Your task to perform on an android device: turn off location history Image 0: 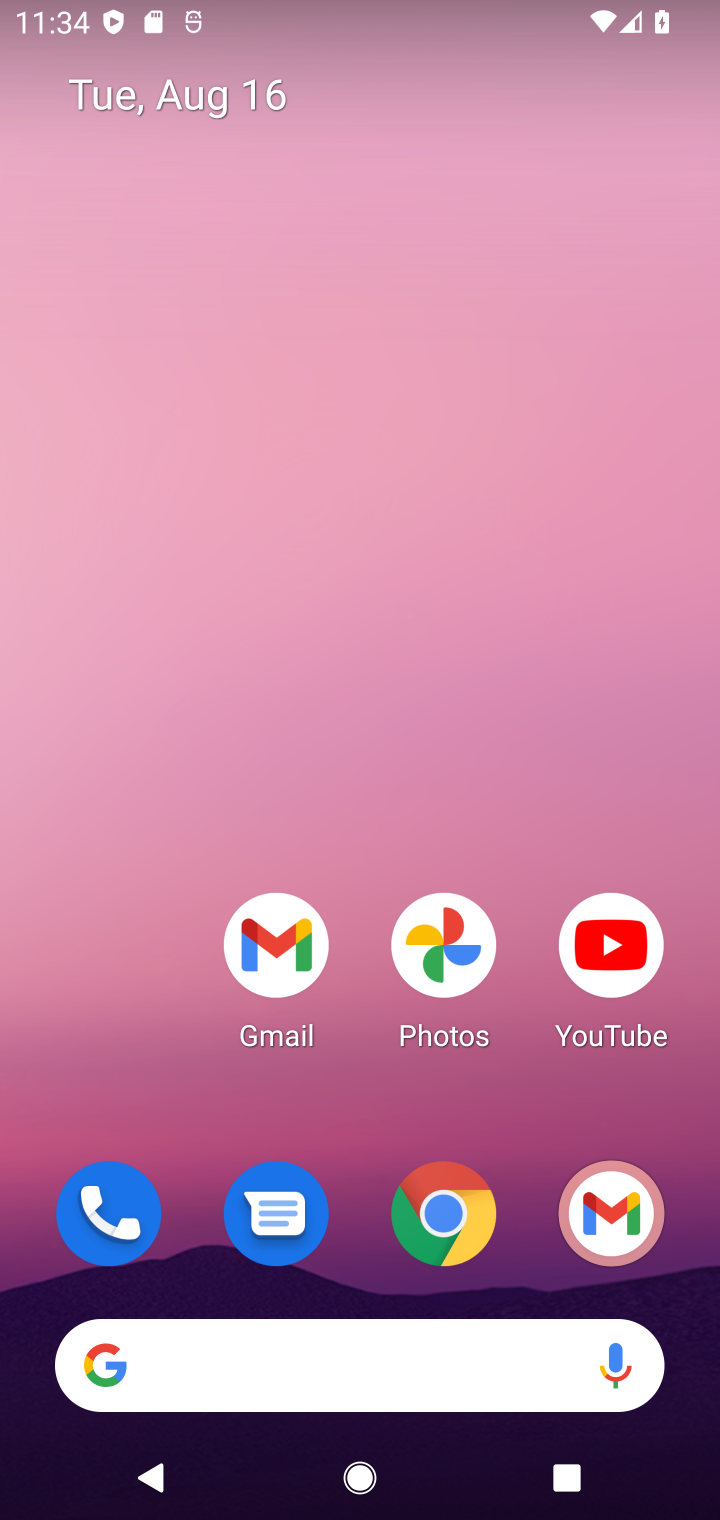
Step 0: drag from (531, 1099) to (520, 0)
Your task to perform on an android device: turn off location history Image 1: 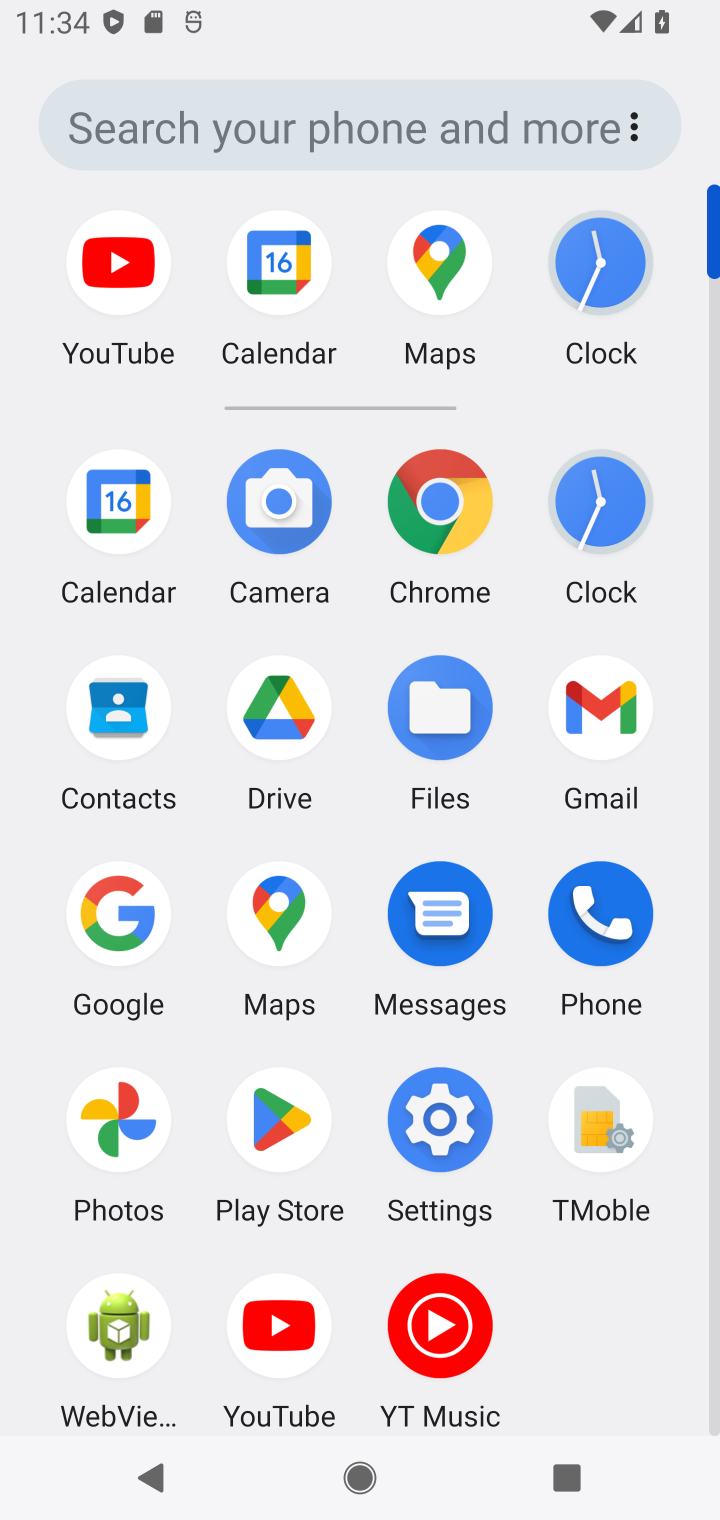
Step 1: click (436, 1109)
Your task to perform on an android device: turn off location history Image 2: 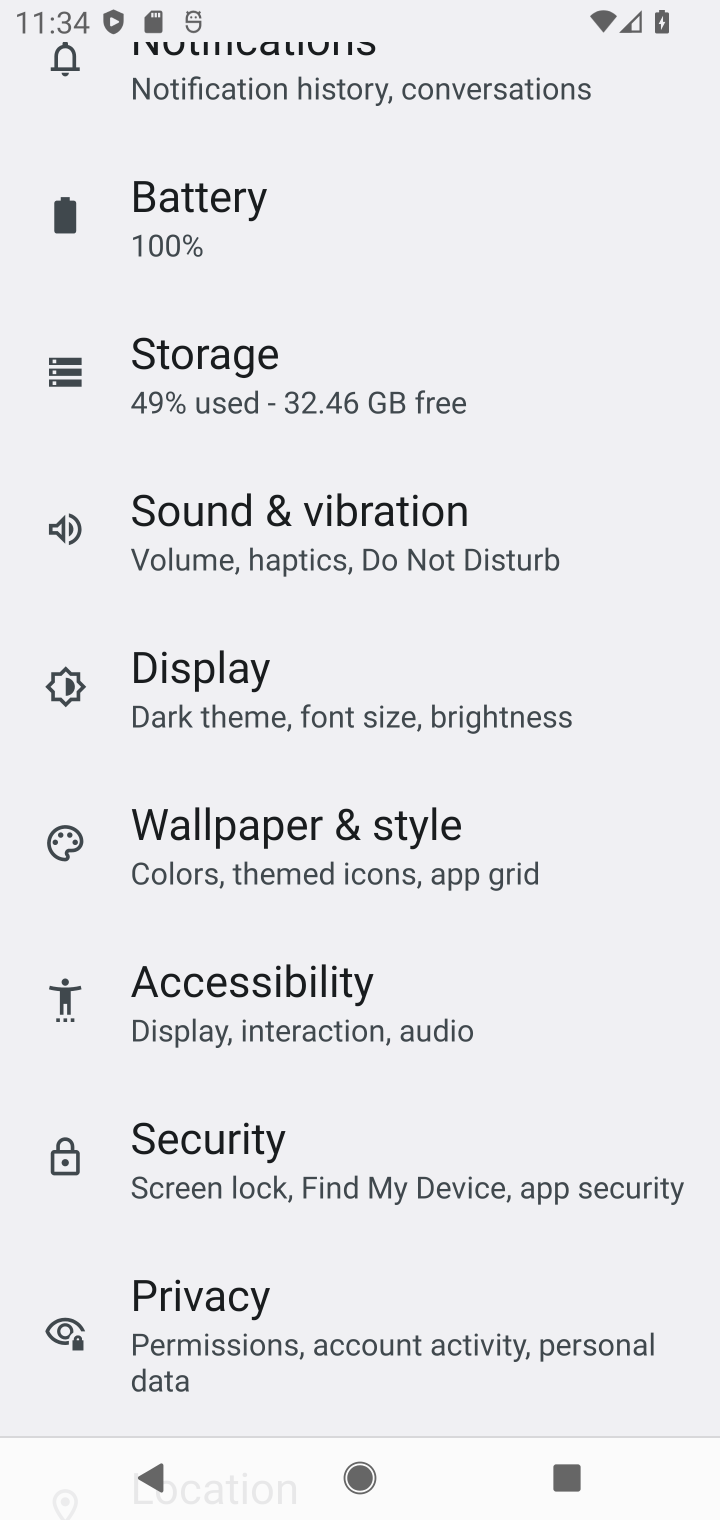
Step 2: drag from (479, 1135) to (650, 37)
Your task to perform on an android device: turn off location history Image 3: 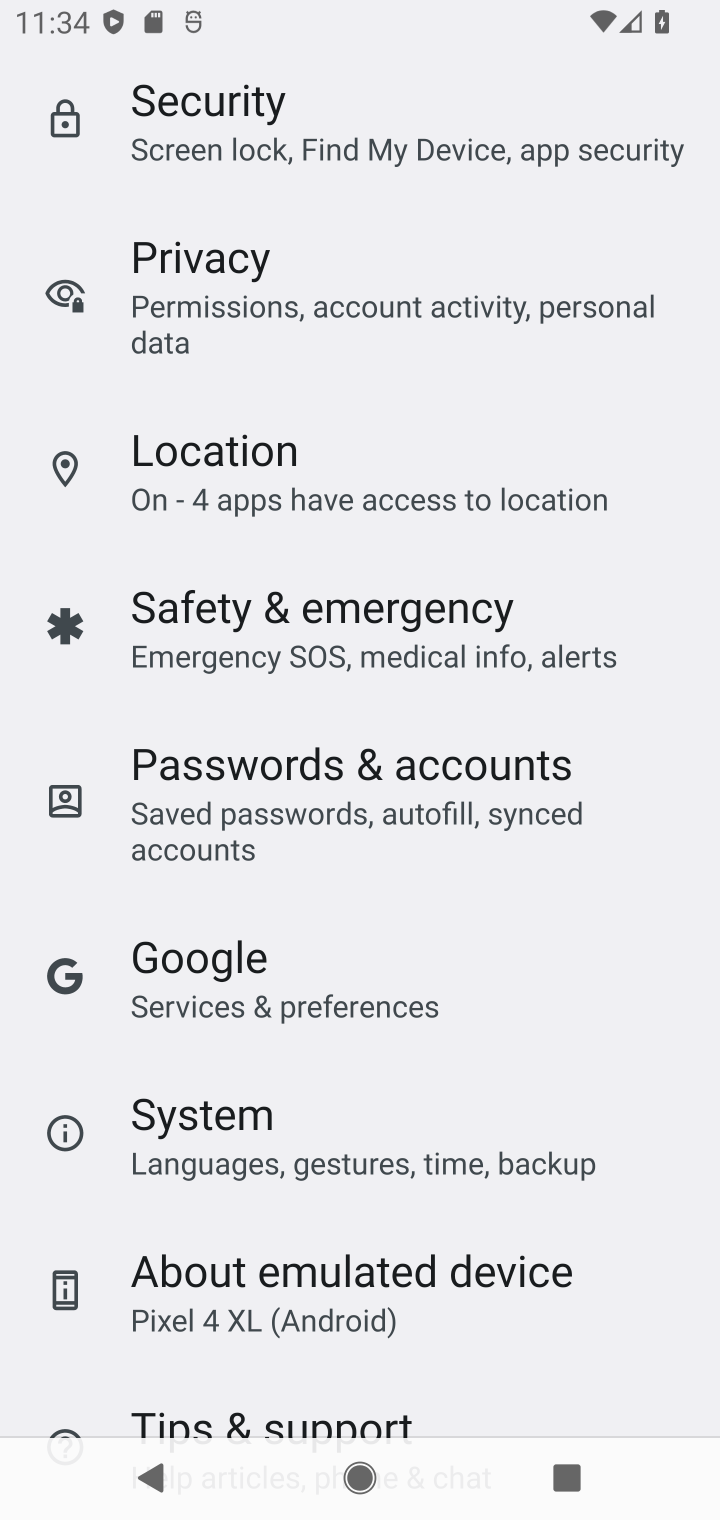
Step 3: click (308, 457)
Your task to perform on an android device: turn off location history Image 4: 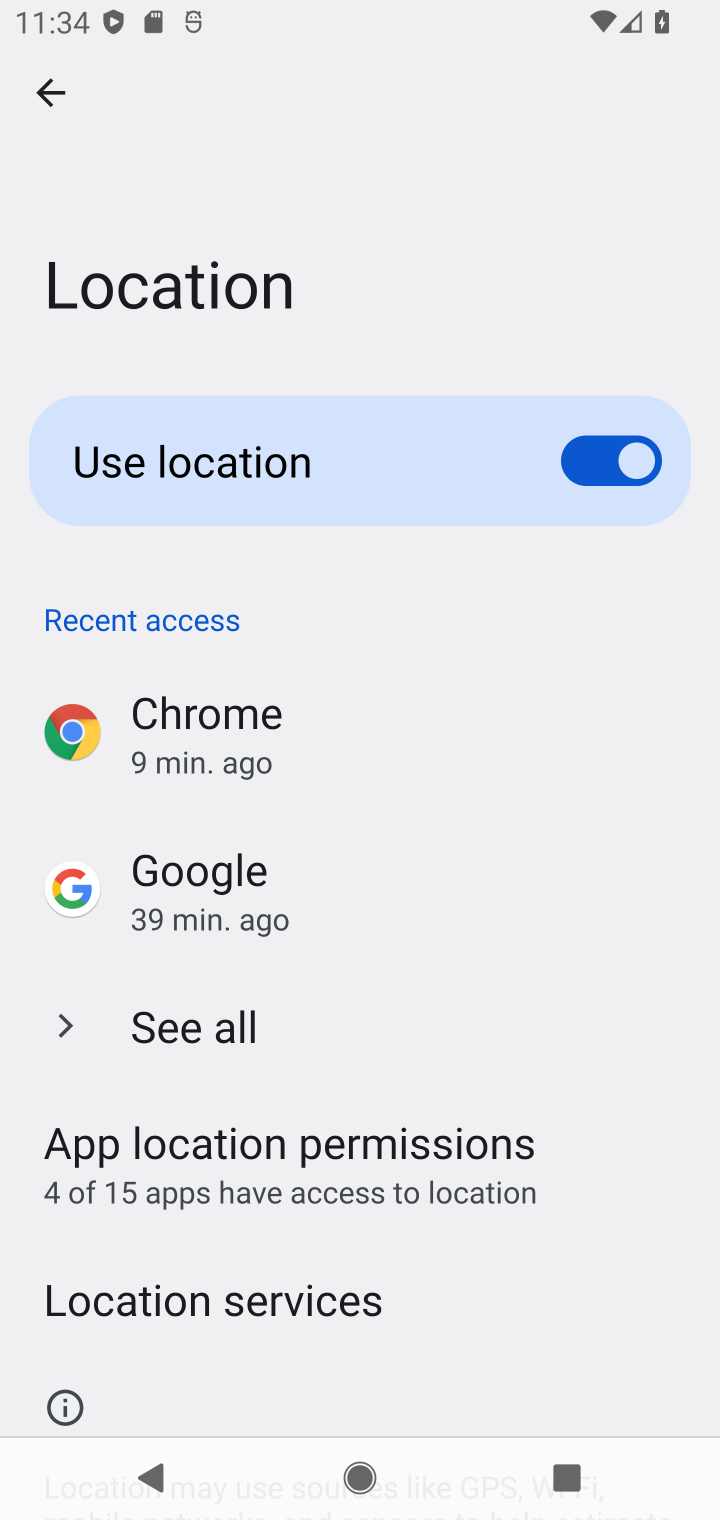
Step 4: click (343, 1301)
Your task to perform on an android device: turn off location history Image 5: 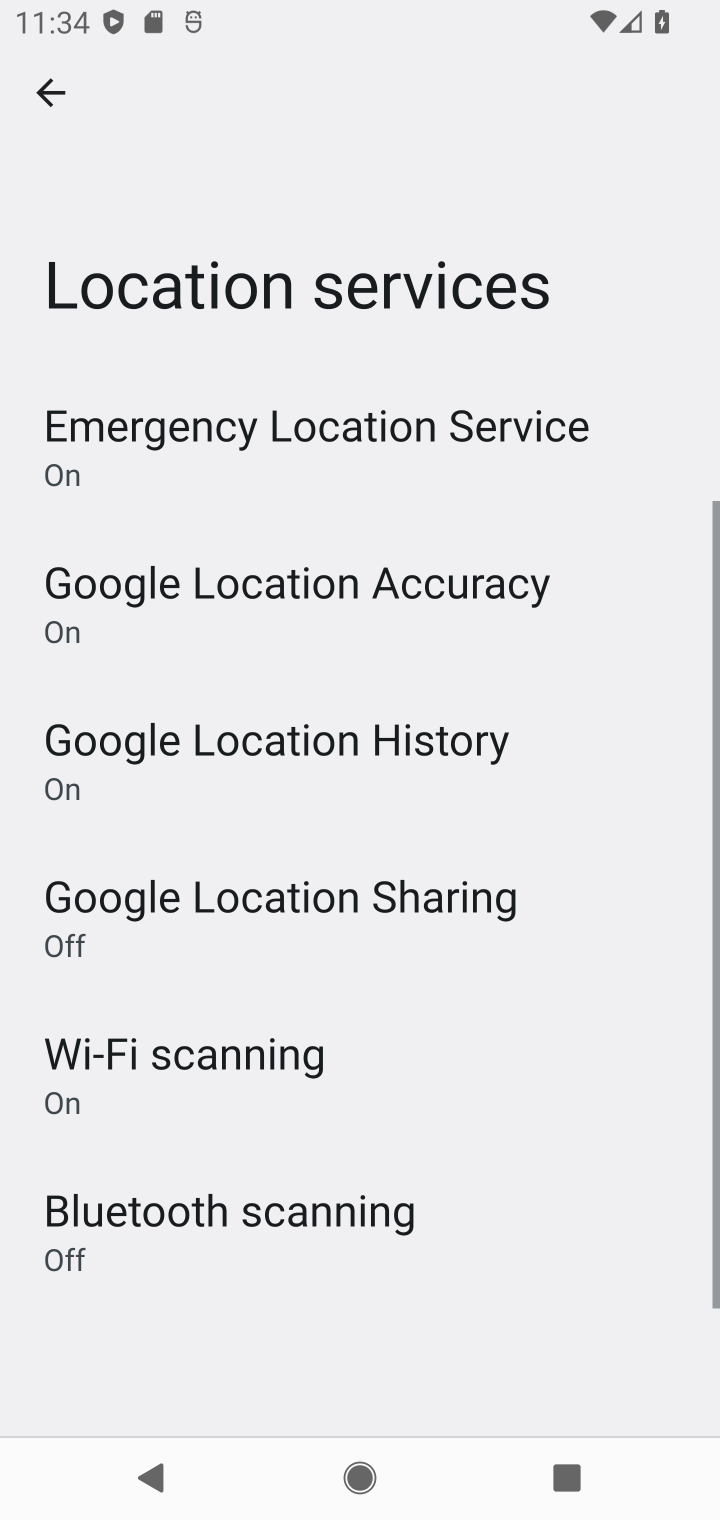
Step 5: click (420, 745)
Your task to perform on an android device: turn off location history Image 6: 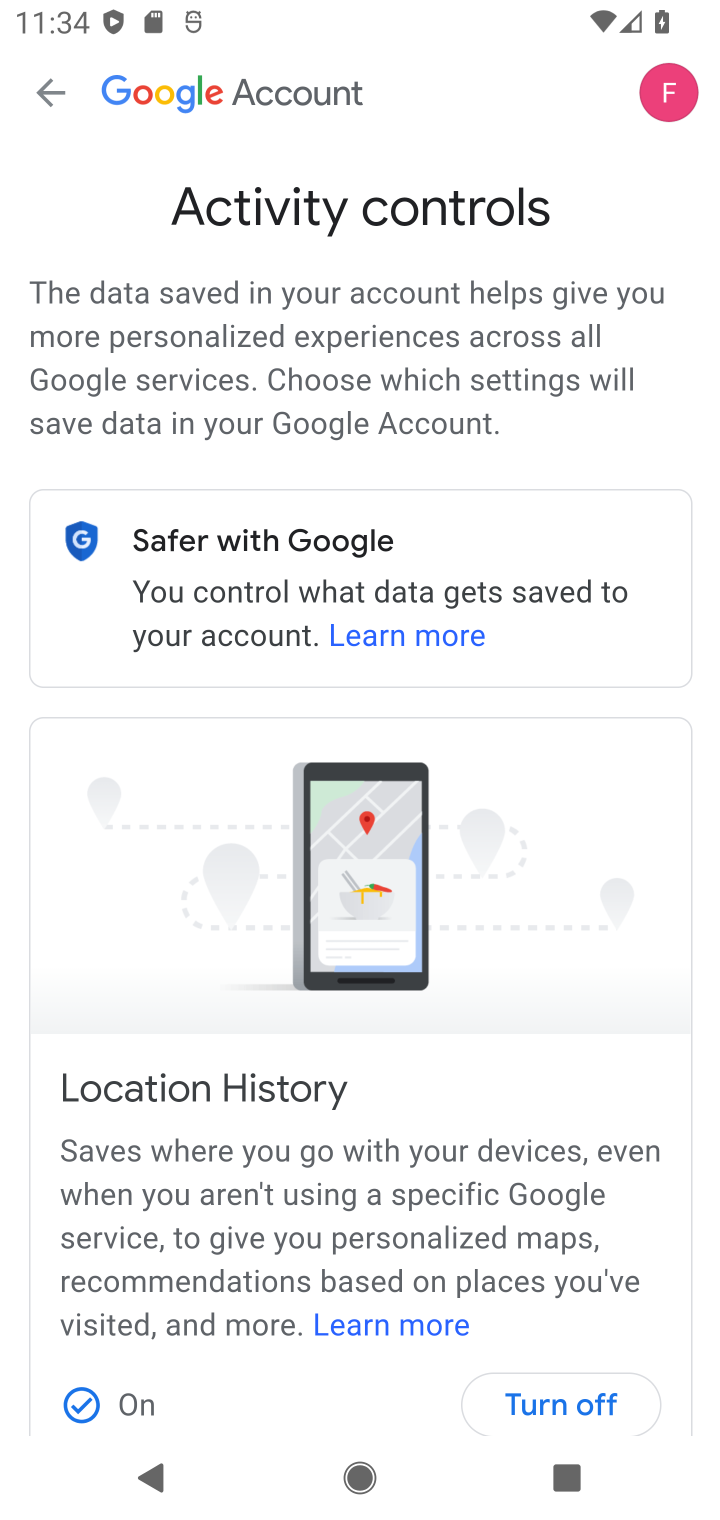
Step 6: click (580, 1384)
Your task to perform on an android device: turn off location history Image 7: 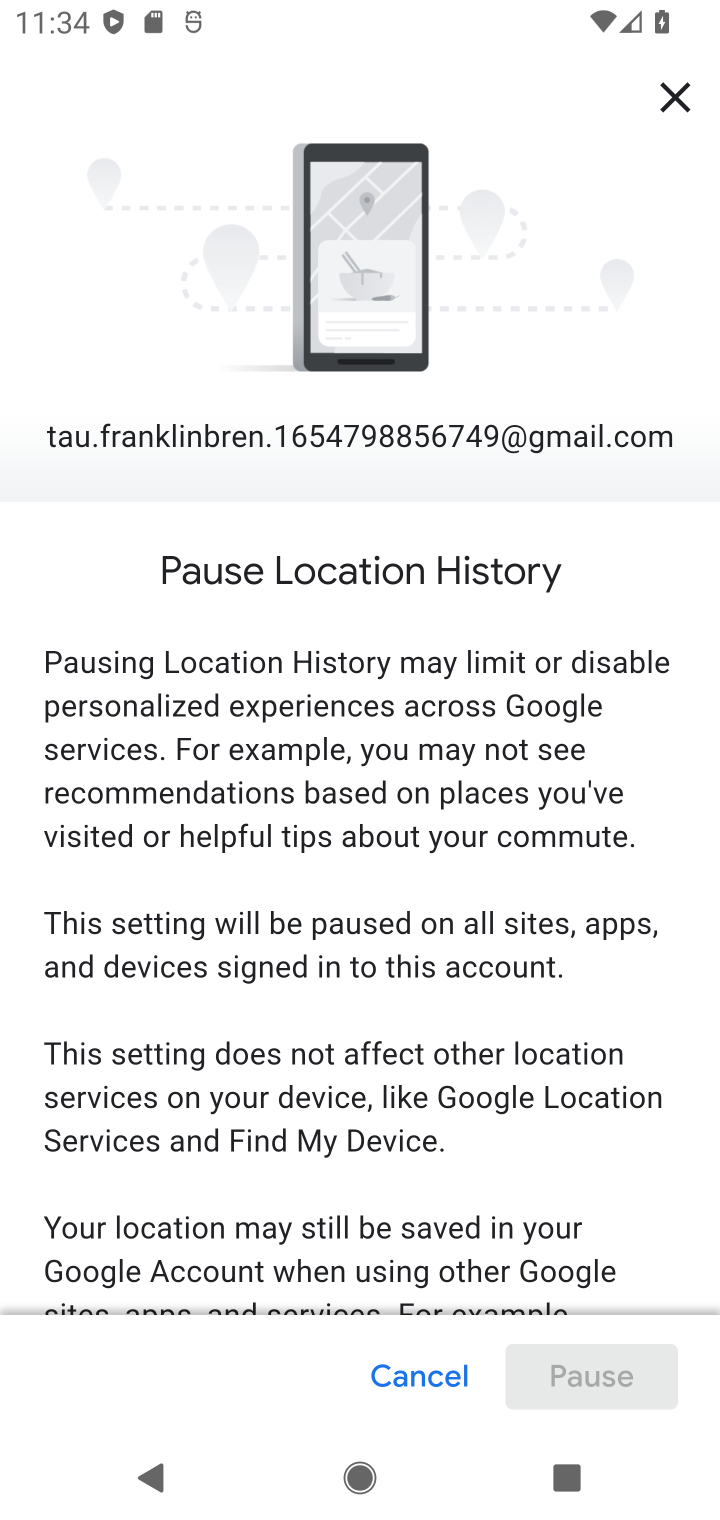
Step 7: drag from (539, 1188) to (542, 128)
Your task to perform on an android device: turn off location history Image 8: 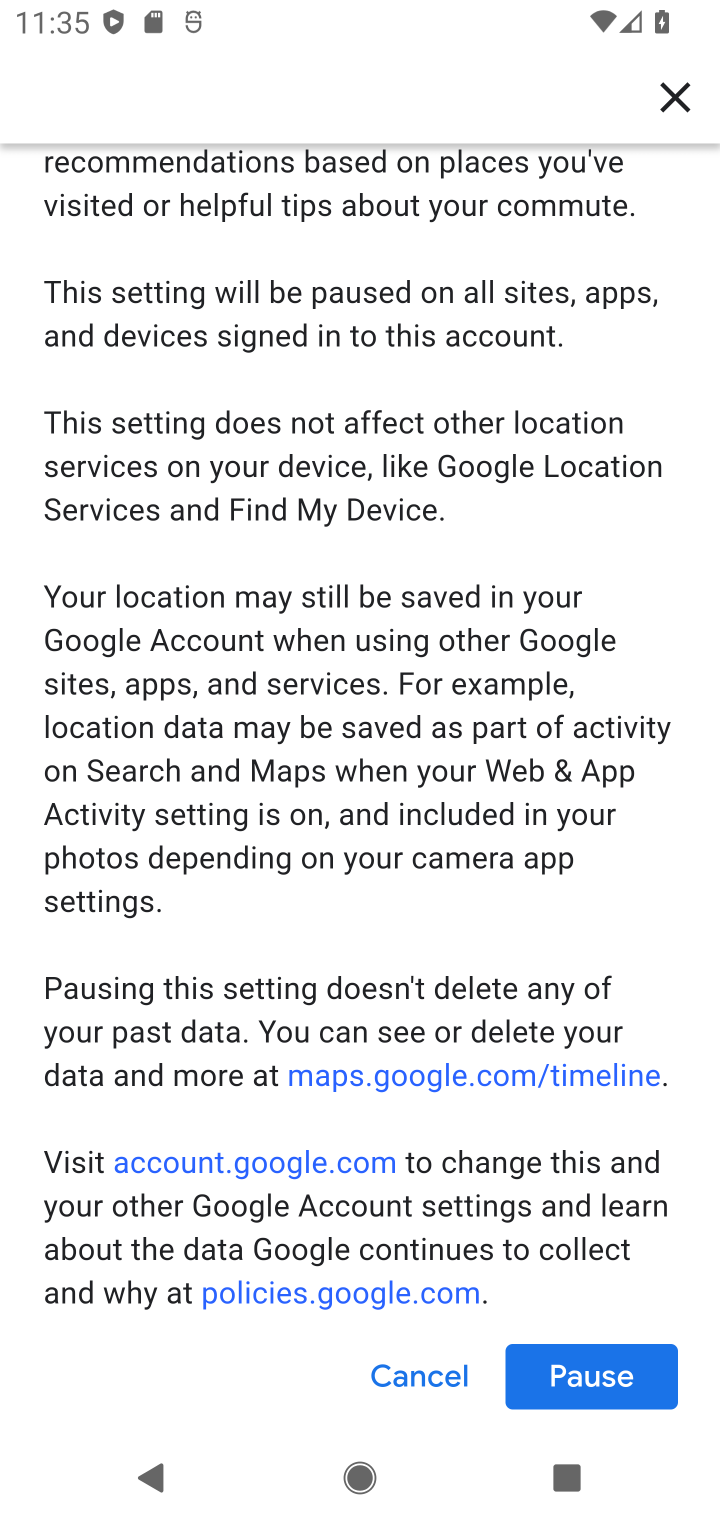
Step 8: click (623, 1401)
Your task to perform on an android device: turn off location history Image 9: 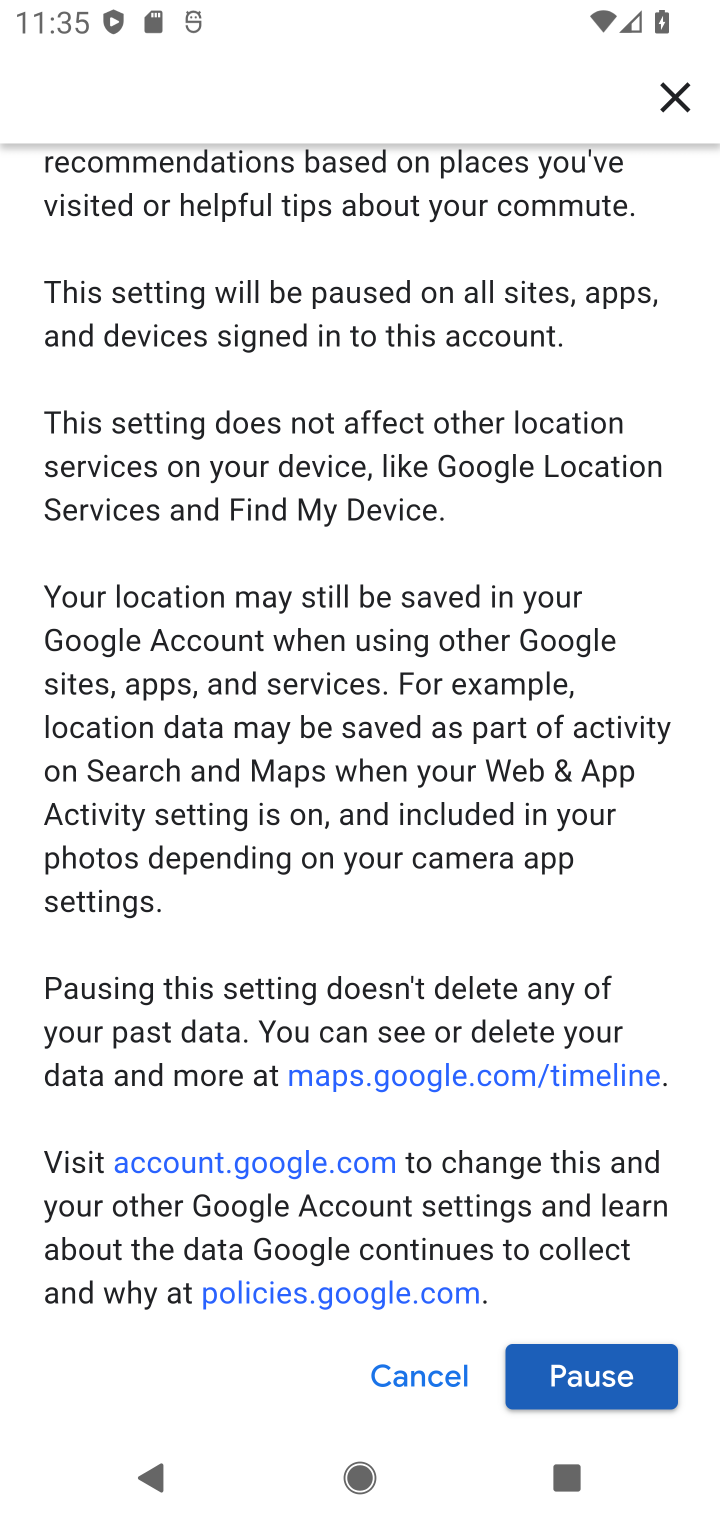
Step 9: click (600, 1374)
Your task to perform on an android device: turn off location history Image 10: 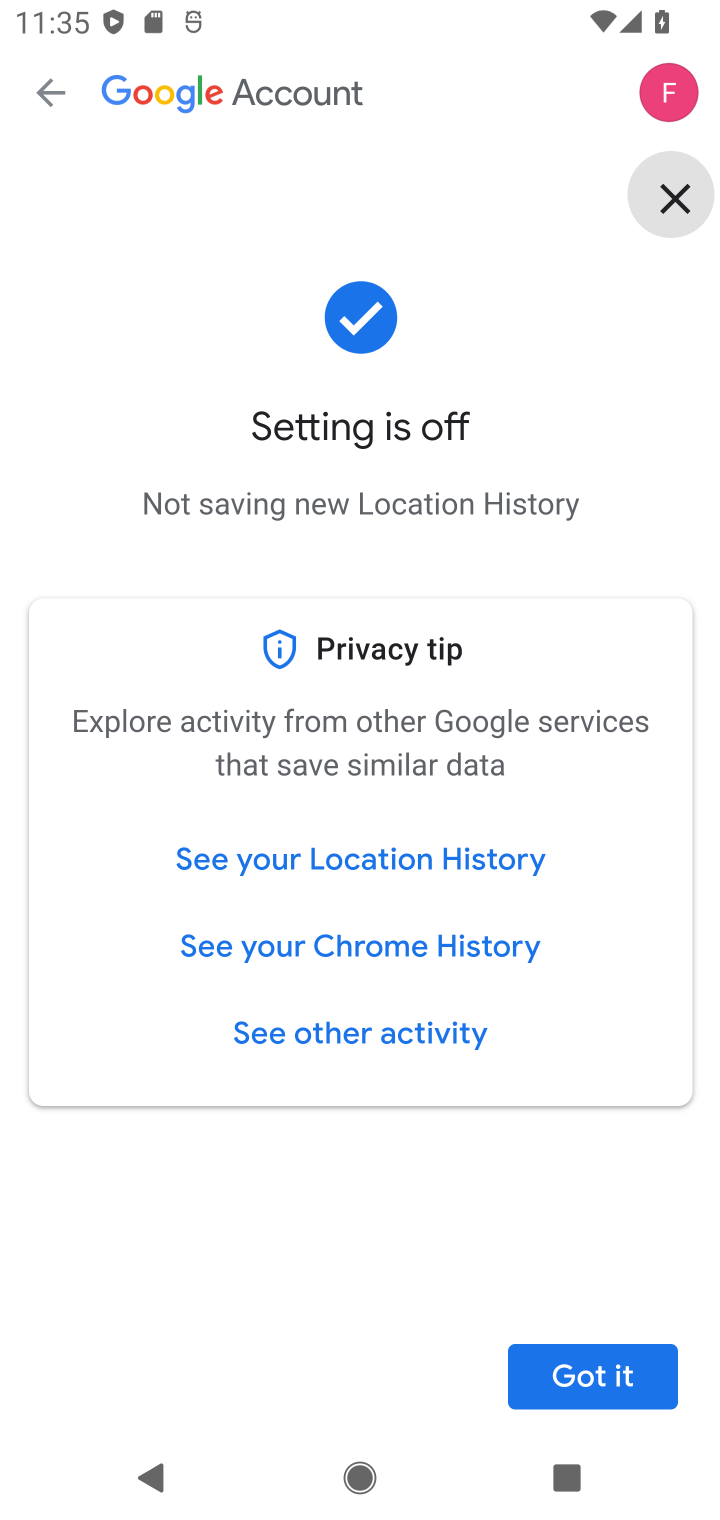
Step 10: click (611, 1374)
Your task to perform on an android device: turn off location history Image 11: 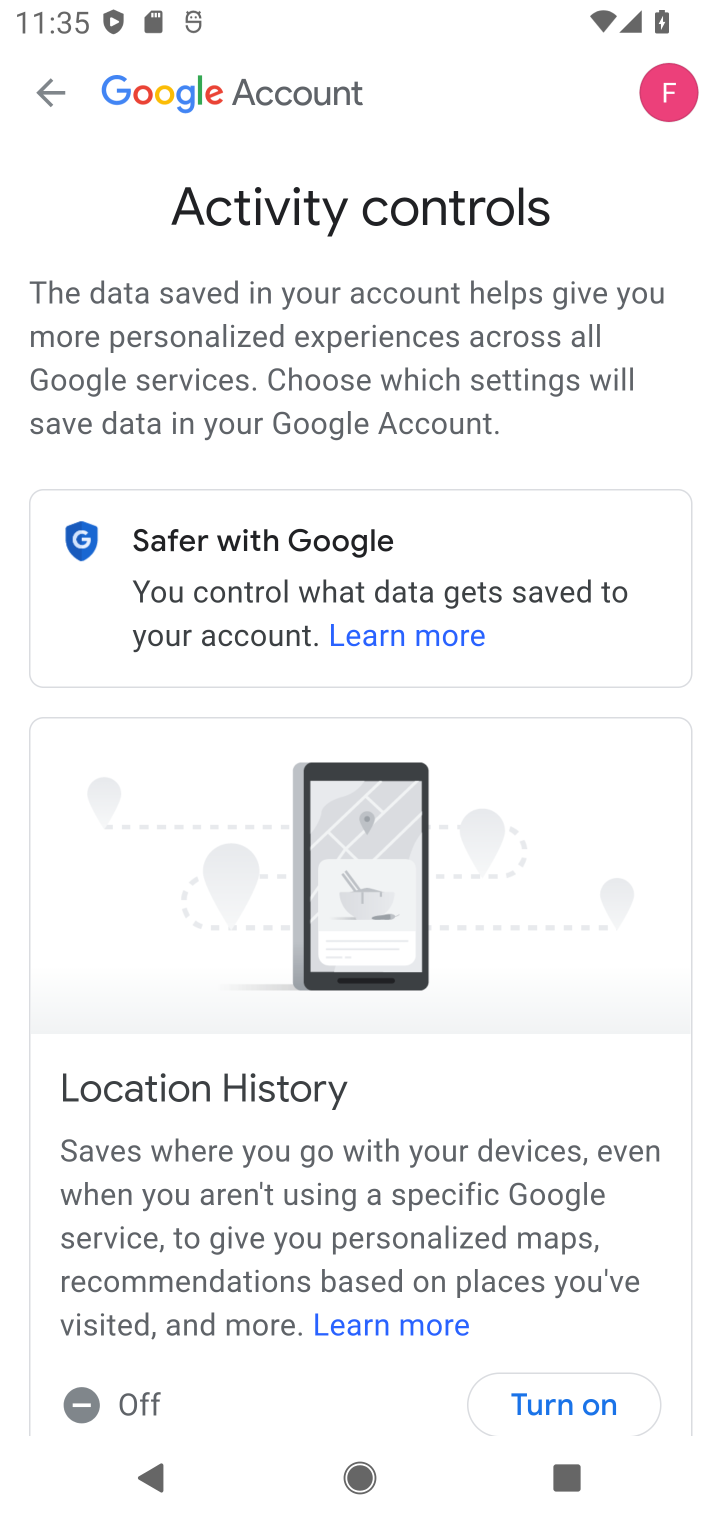
Step 11: task complete